Your task to perform on an android device: open app "DoorDash - Dasher" (install if not already installed) and go to login screen Image 0: 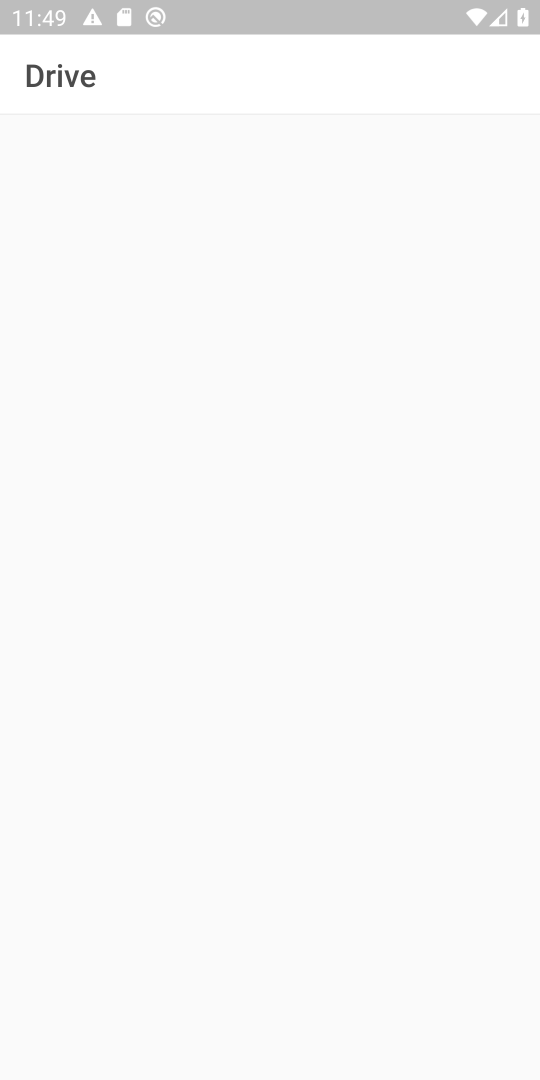
Step 0: press home button
Your task to perform on an android device: open app "DoorDash - Dasher" (install if not already installed) and go to login screen Image 1: 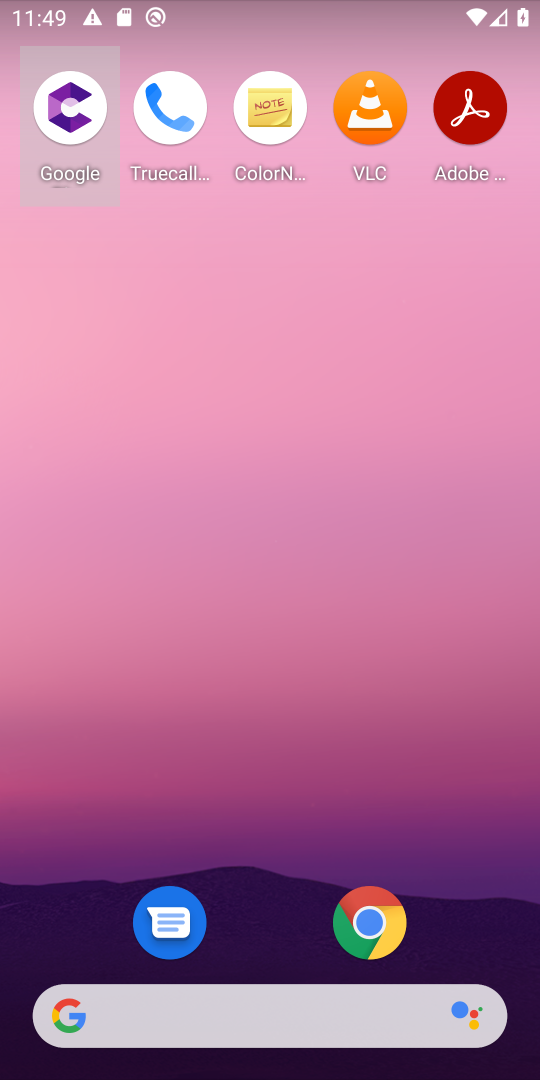
Step 1: drag from (318, 976) to (441, 50)
Your task to perform on an android device: open app "DoorDash - Dasher" (install if not already installed) and go to login screen Image 2: 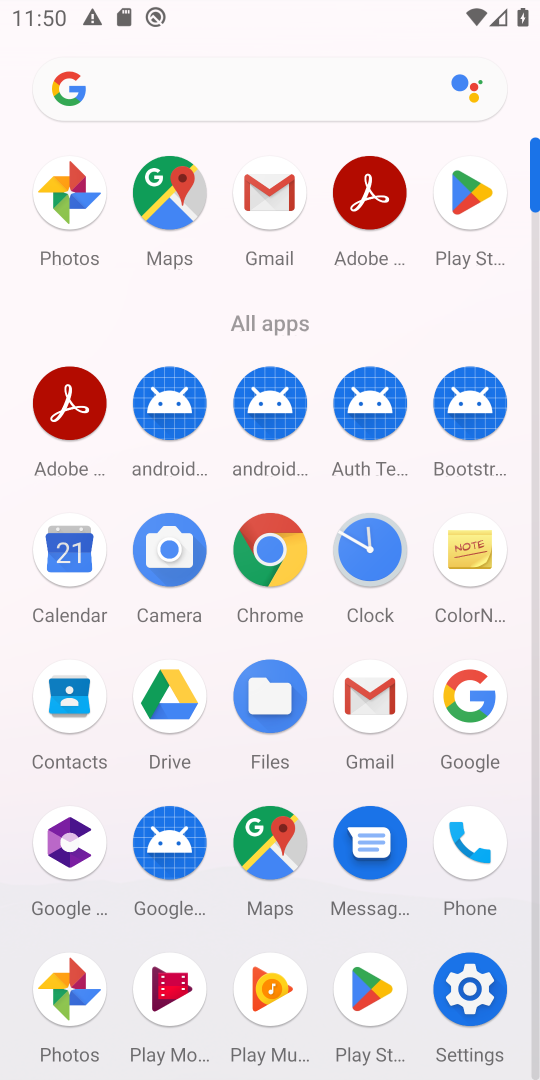
Step 2: click (359, 1005)
Your task to perform on an android device: open app "DoorDash - Dasher" (install if not already installed) and go to login screen Image 3: 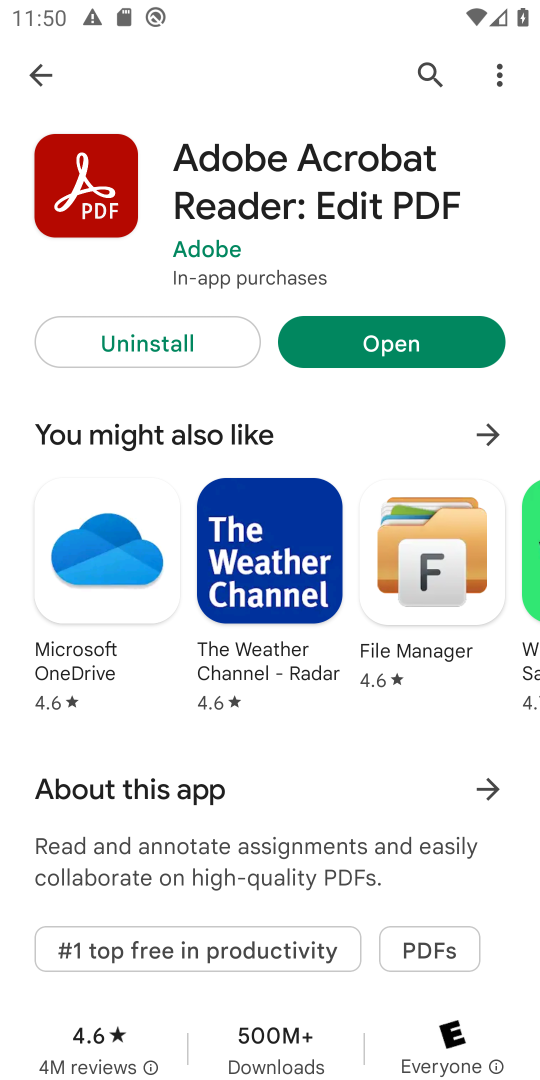
Step 3: click (32, 68)
Your task to perform on an android device: open app "DoorDash - Dasher" (install if not already installed) and go to login screen Image 4: 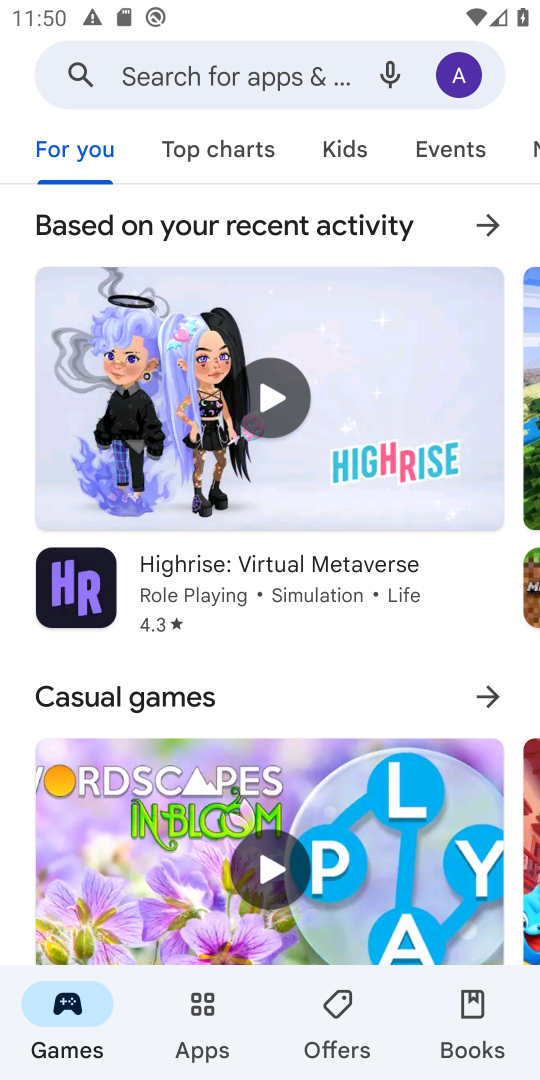
Step 4: click (262, 68)
Your task to perform on an android device: open app "DoorDash - Dasher" (install if not already installed) and go to login screen Image 5: 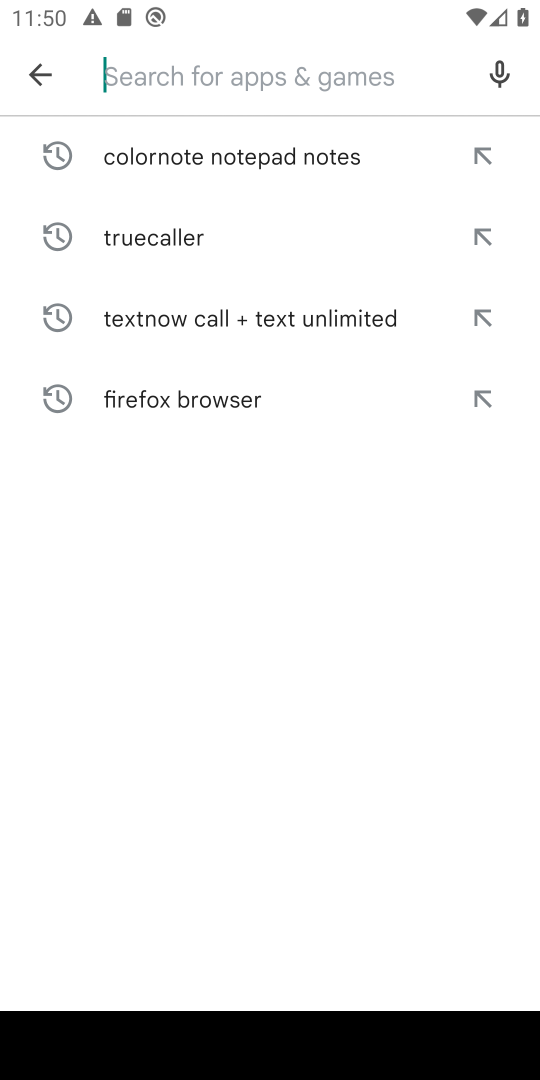
Step 5: type "DoorDash"
Your task to perform on an android device: open app "DoorDash - Dasher" (install if not already installed) and go to login screen Image 6: 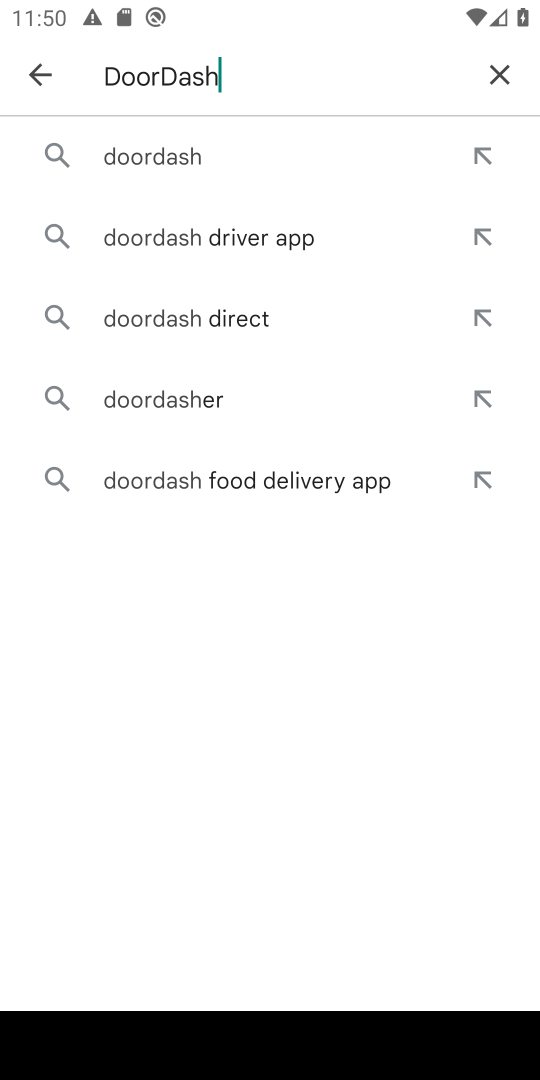
Step 6: click (190, 163)
Your task to perform on an android device: open app "DoorDash - Dasher" (install if not already installed) and go to login screen Image 7: 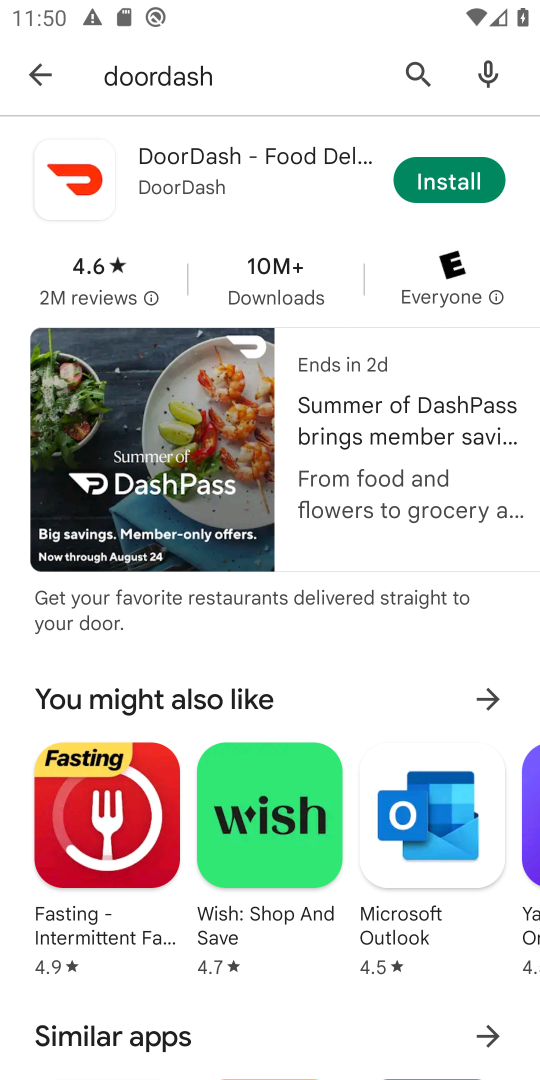
Step 7: click (432, 178)
Your task to perform on an android device: open app "DoorDash - Dasher" (install if not already installed) and go to login screen Image 8: 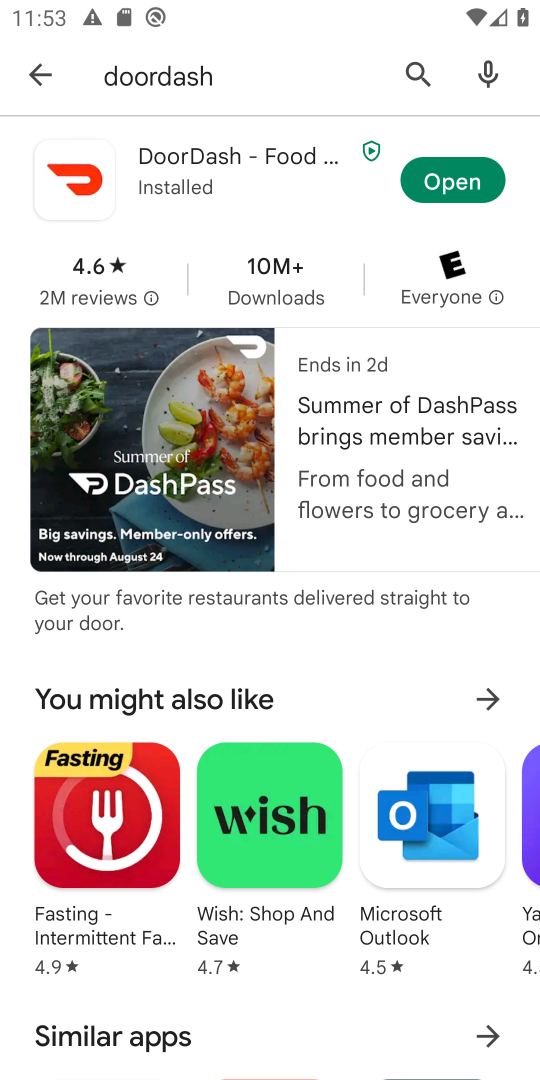
Step 8: click (432, 178)
Your task to perform on an android device: open app "DoorDash - Dasher" (install if not already installed) and go to login screen Image 9: 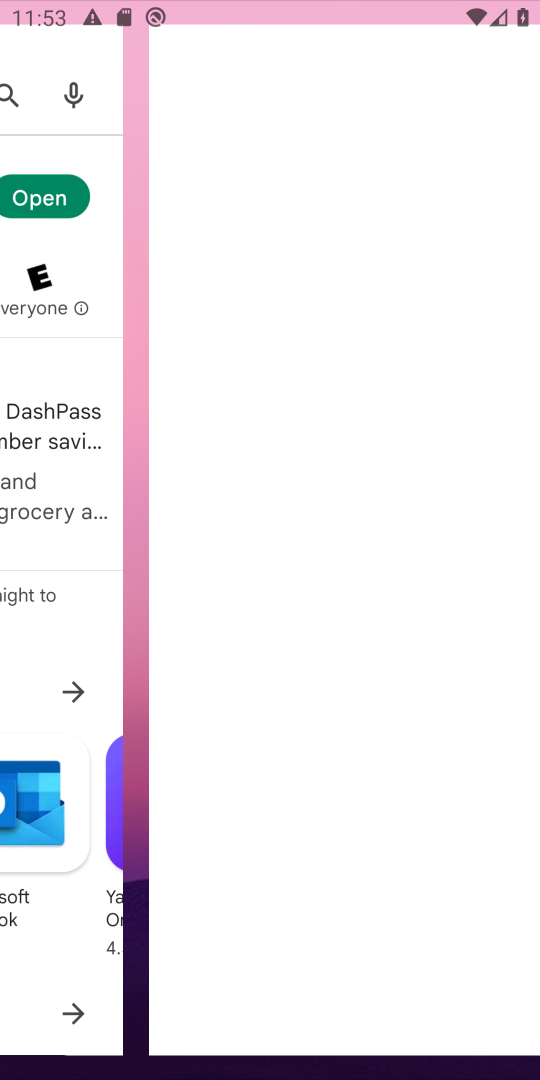
Step 9: task complete